Your task to perform on an android device: Open Wikipedia Image 0: 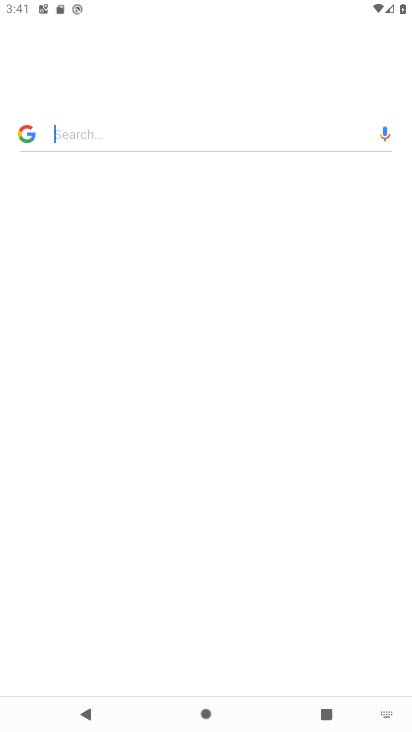
Step 0: drag from (284, 614) to (397, 520)
Your task to perform on an android device: Open Wikipedia Image 1: 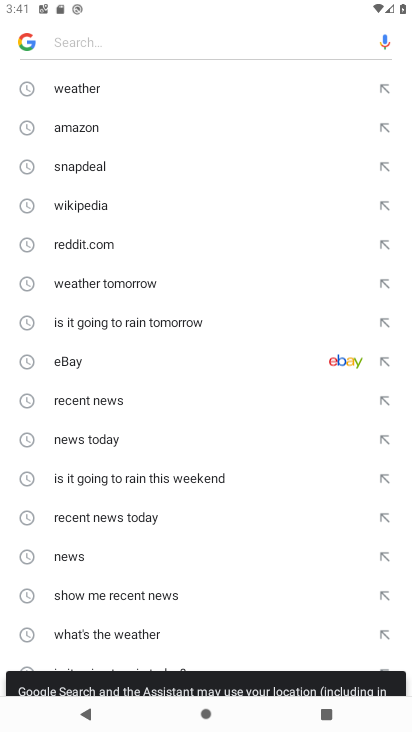
Step 1: press home button
Your task to perform on an android device: Open Wikipedia Image 2: 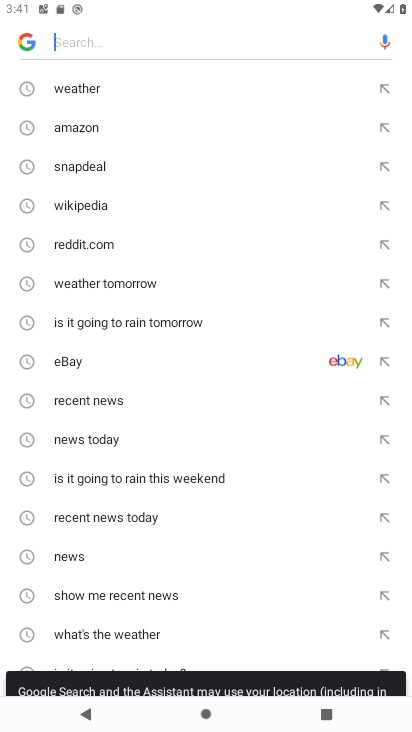
Step 2: drag from (397, 520) to (403, 318)
Your task to perform on an android device: Open Wikipedia Image 3: 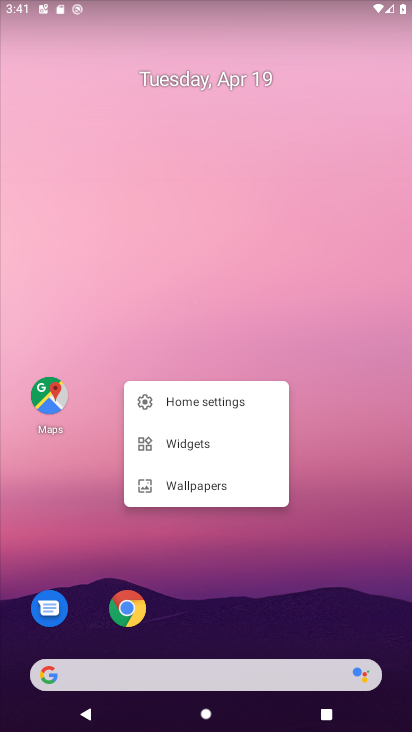
Step 3: click (133, 606)
Your task to perform on an android device: Open Wikipedia Image 4: 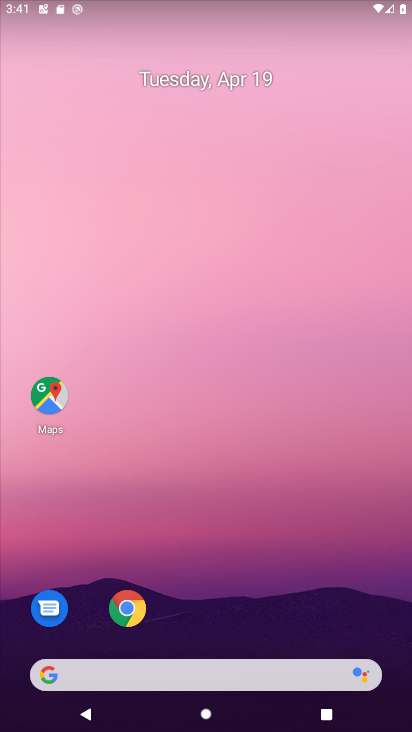
Step 4: drag from (287, 591) to (231, 30)
Your task to perform on an android device: Open Wikipedia Image 5: 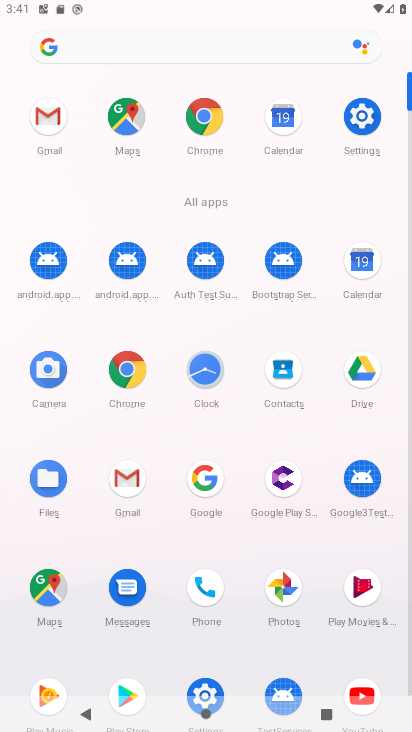
Step 5: click (128, 372)
Your task to perform on an android device: Open Wikipedia Image 6: 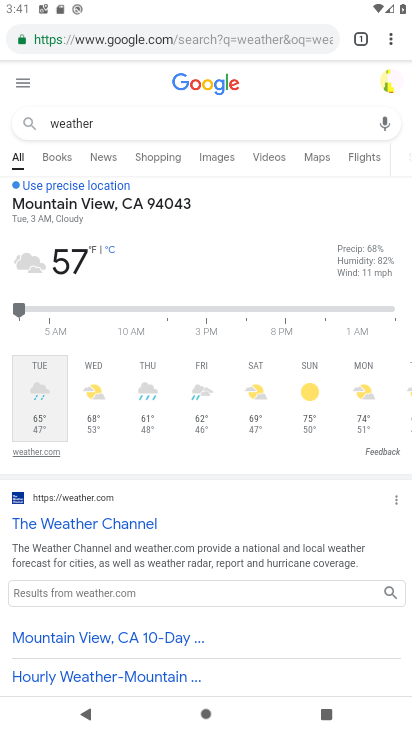
Step 6: click (188, 37)
Your task to perform on an android device: Open Wikipedia Image 7: 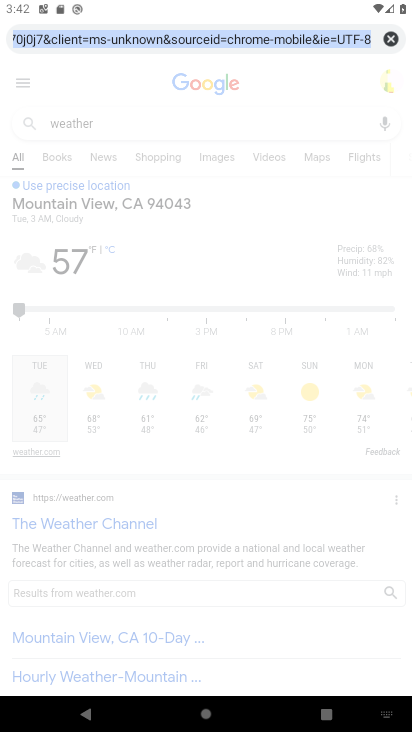
Step 7: type "wikipedia"
Your task to perform on an android device: Open Wikipedia Image 8: 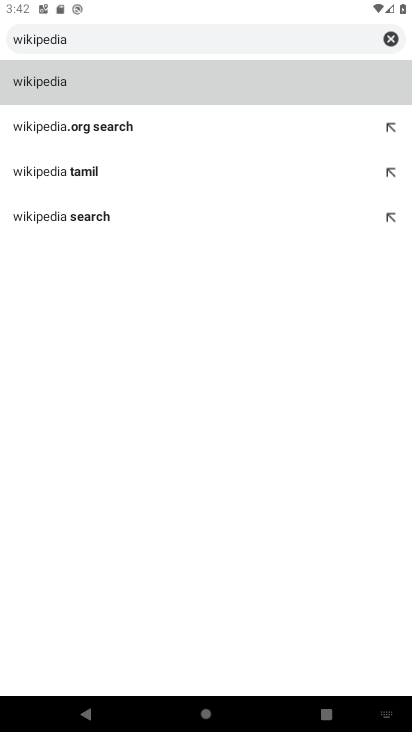
Step 8: click (151, 83)
Your task to perform on an android device: Open Wikipedia Image 9: 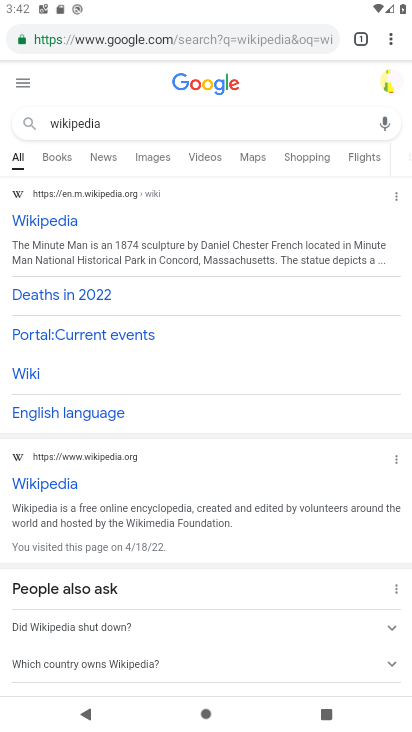
Step 9: click (60, 223)
Your task to perform on an android device: Open Wikipedia Image 10: 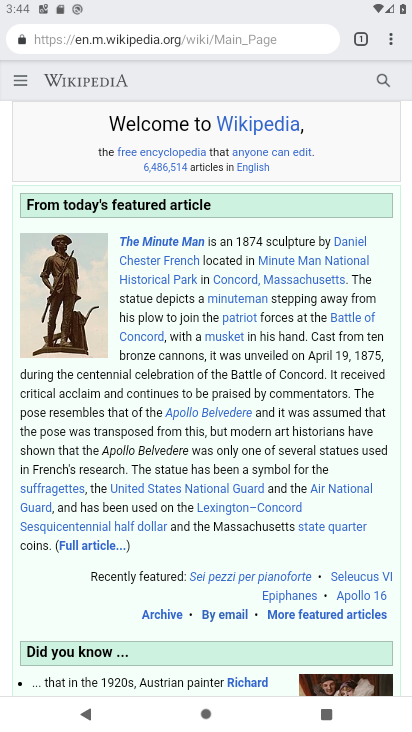
Step 10: task complete